Your task to perform on an android device: Open my contact list Image 0: 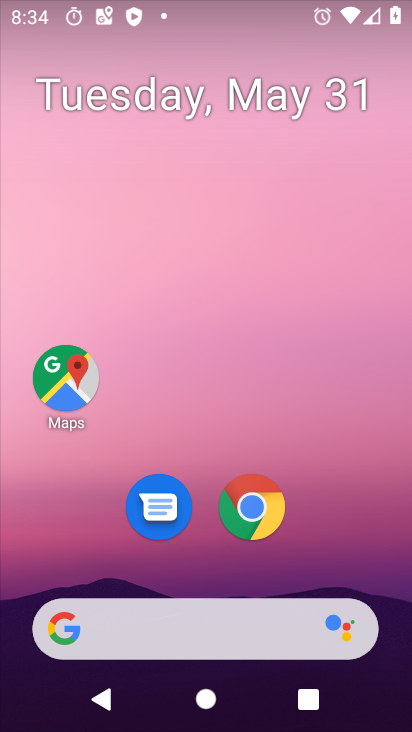
Step 0: drag from (380, 599) to (328, 14)
Your task to perform on an android device: Open my contact list Image 1: 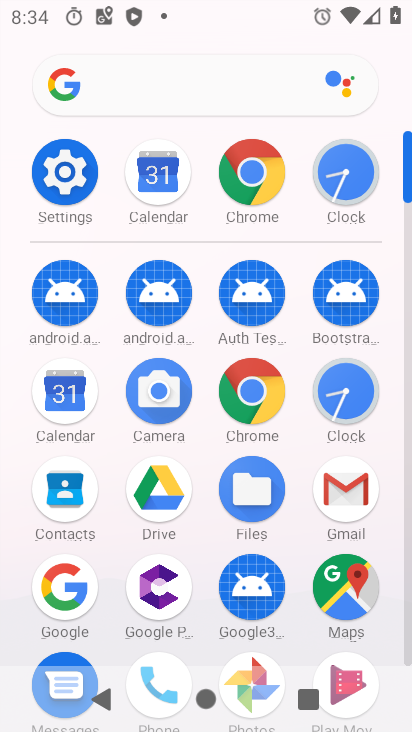
Step 1: click (62, 501)
Your task to perform on an android device: Open my contact list Image 2: 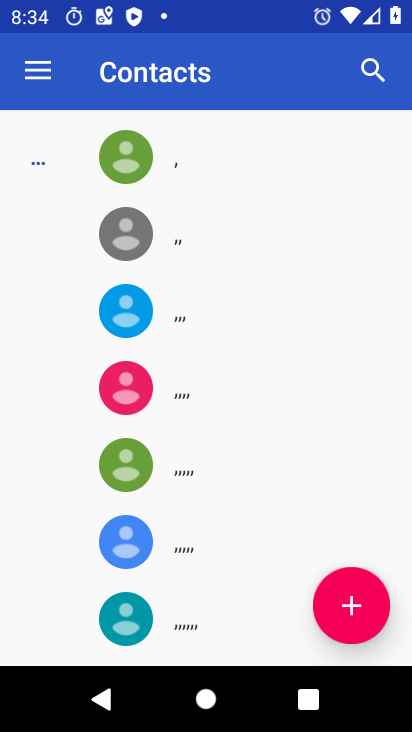
Step 2: task complete